Your task to perform on an android device: What's on my calendar today? Image 0: 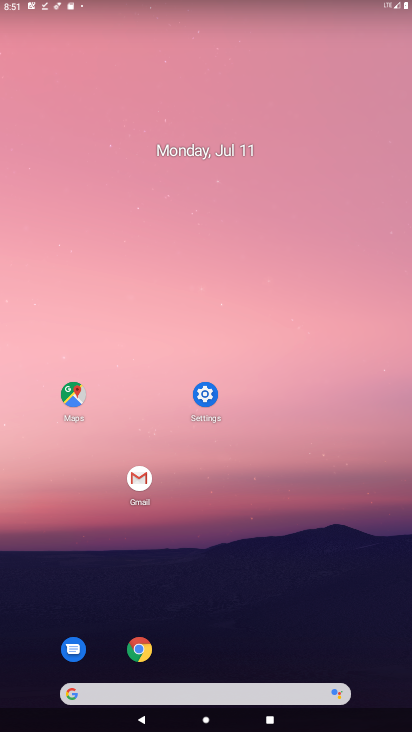
Step 0: drag from (378, 581) to (397, 64)
Your task to perform on an android device: What's on my calendar today? Image 1: 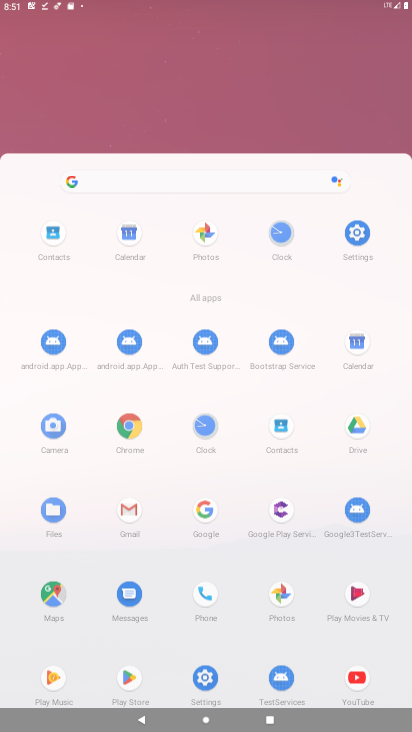
Step 1: drag from (329, 443) to (325, 100)
Your task to perform on an android device: What's on my calendar today? Image 2: 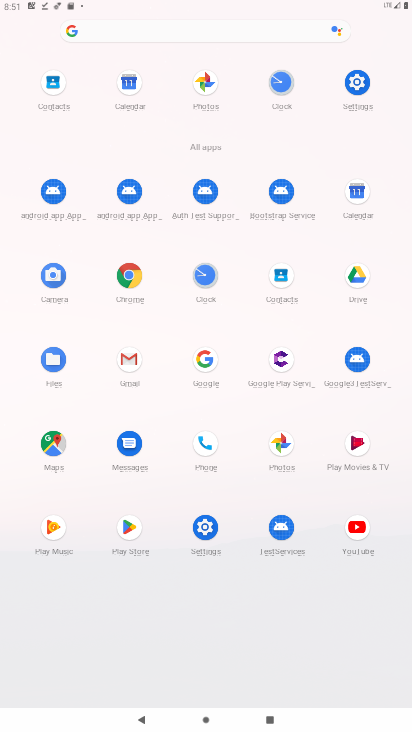
Step 2: click (362, 197)
Your task to perform on an android device: What's on my calendar today? Image 3: 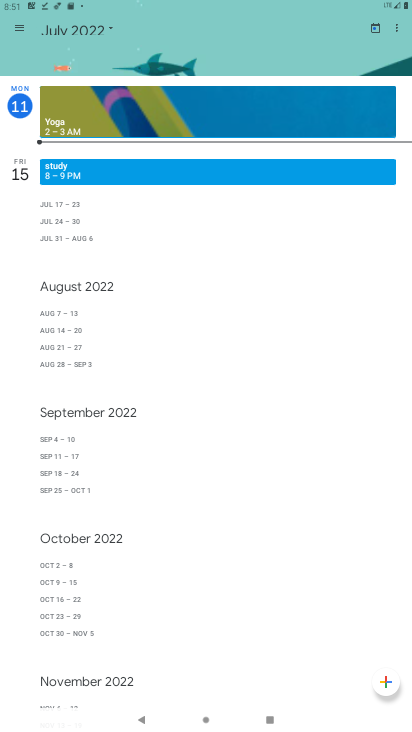
Step 3: click (27, 103)
Your task to perform on an android device: What's on my calendar today? Image 4: 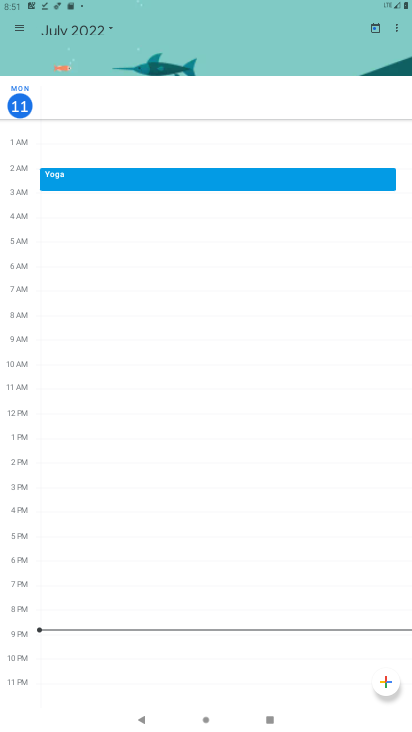
Step 4: task complete